Your task to perform on an android device: add a contact in the contacts app Image 0: 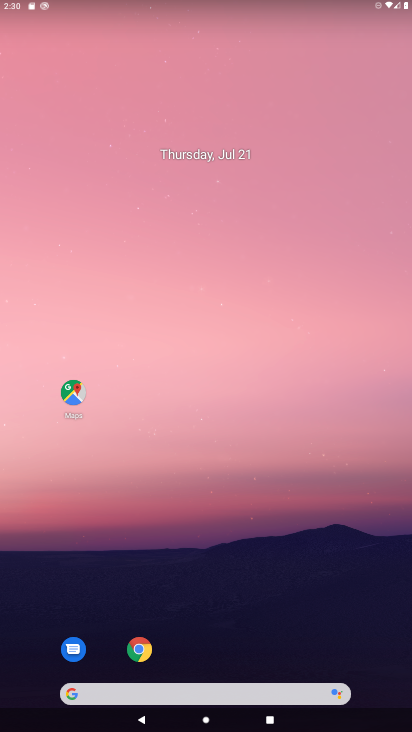
Step 0: drag from (277, 525) to (101, 1)
Your task to perform on an android device: add a contact in the contacts app Image 1: 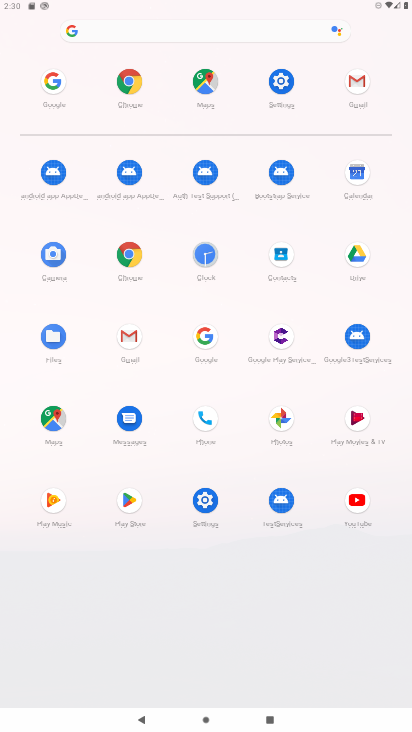
Step 1: click (199, 421)
Your task to perform on an android device: add a contact in the contacts app Image 2: 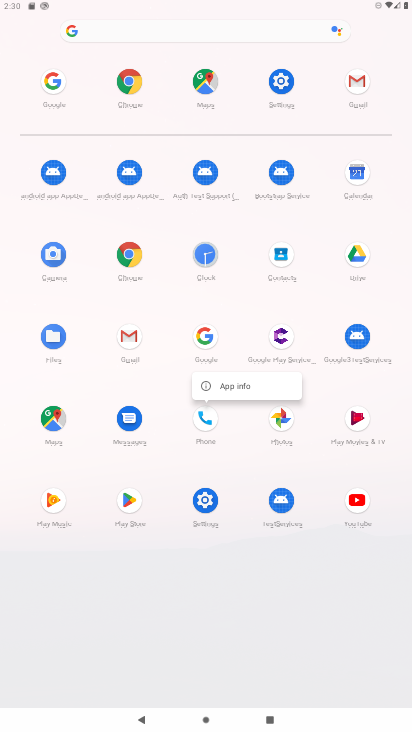
Step 2: click (199, 421)
Your task to perform on an android device: add a contact in the contacts app Image 3: 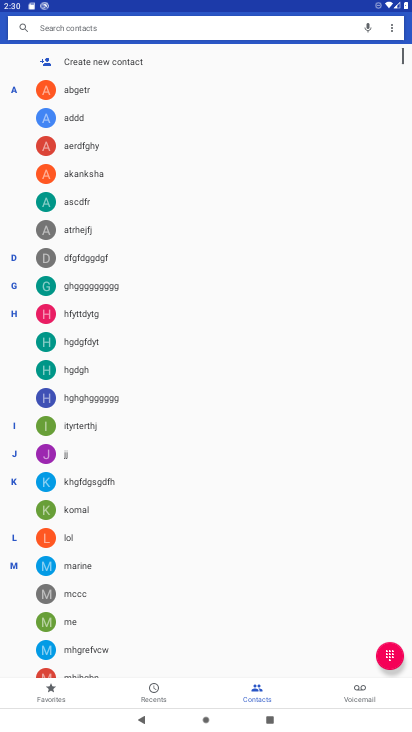
Step 3: click (86, 61)
Your task to perform on an android device: add a contact in the contacts app Image 4: 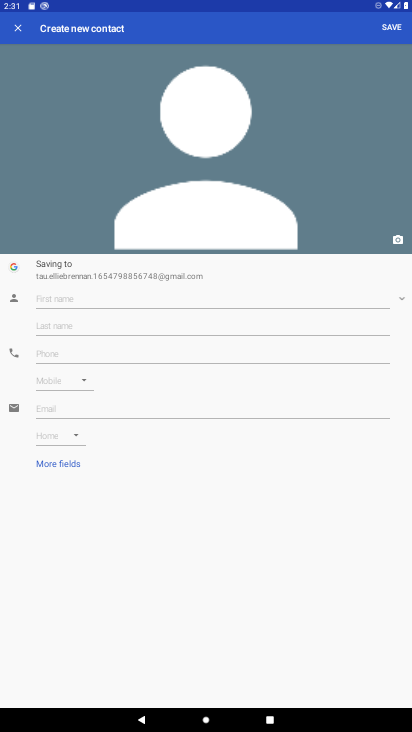
Step 4: click (85, 305)
Your task to perform on an android device: add a contact in the contacts app Image 5: 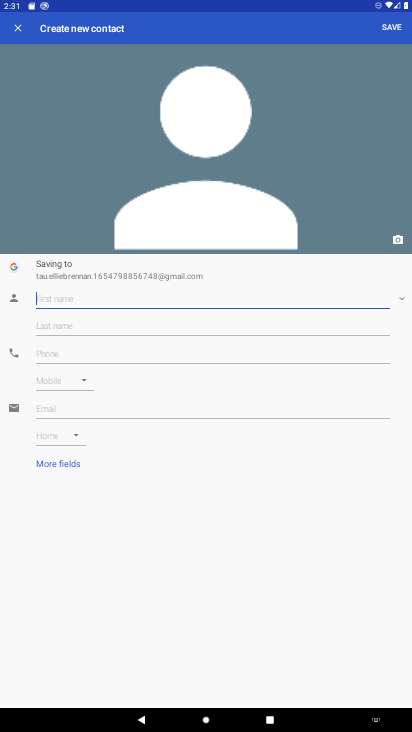
Step 5: type "tyuuuy"
Your task to perform on an android device: add a contact in the contacts app Image 6: 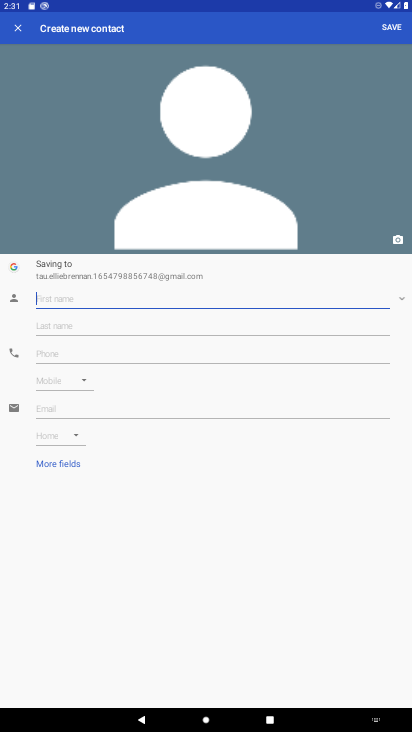
Step 6: click (44, 354)
Your task to perform on an android device: add a contact in the contacts app Image 7: 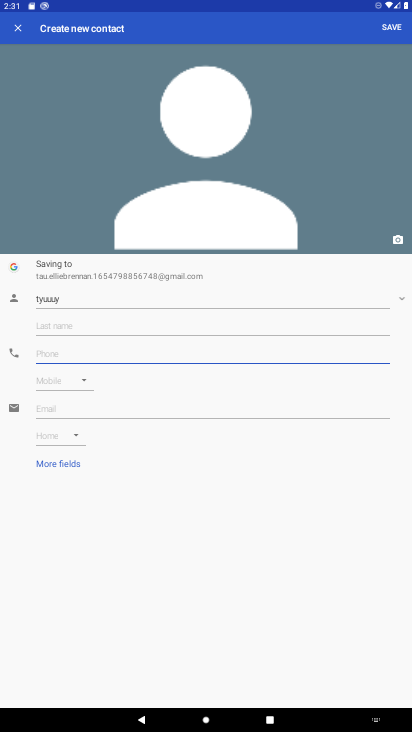
Step 7: type "567865677"
Your task to perform on an android device: add a contact in the contacts app Image 8: 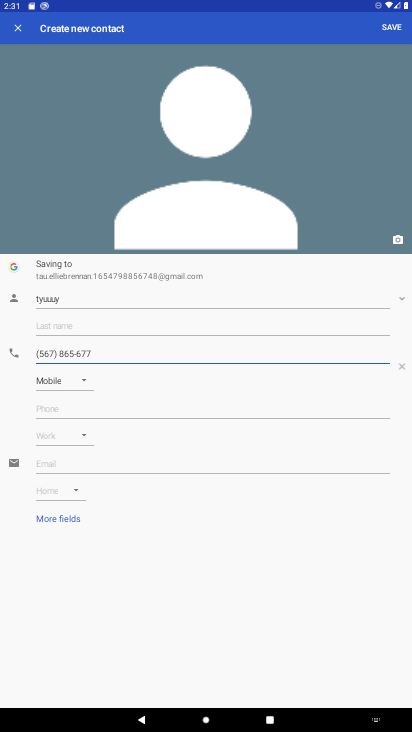
Step 8: click (392, 25)
Your task to perform on an android device: add a contact in the contacts app Image 9: 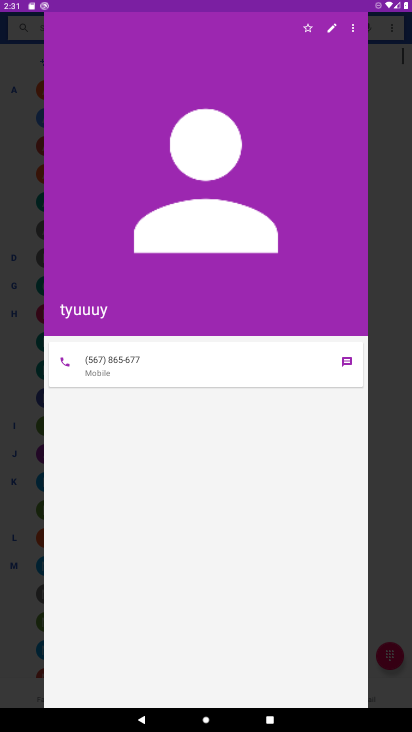
Step 9: task complete